Your task to perform on an android device: Add "asus zenbook" to the cart on amazon.com Image 0: 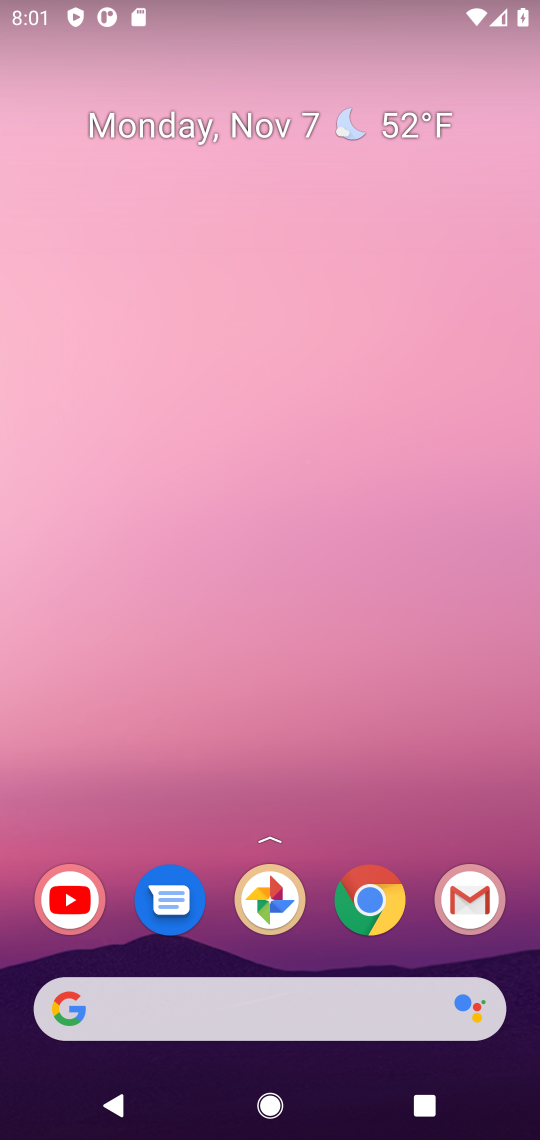
Step 0: click (238, 989)
Your task to perform on an android device: Add "asus zenbook" to the cart on amazon.com Image 1: 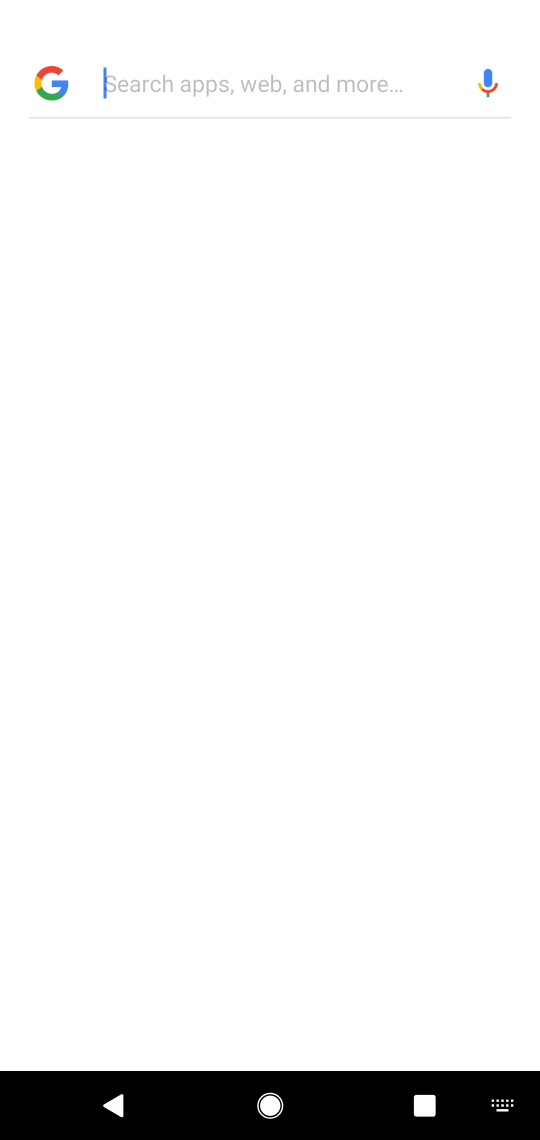
Step 1: press home button
Your task to perform on an android device: Add "asus zenbook" to the cart on amazon.com Image 2: 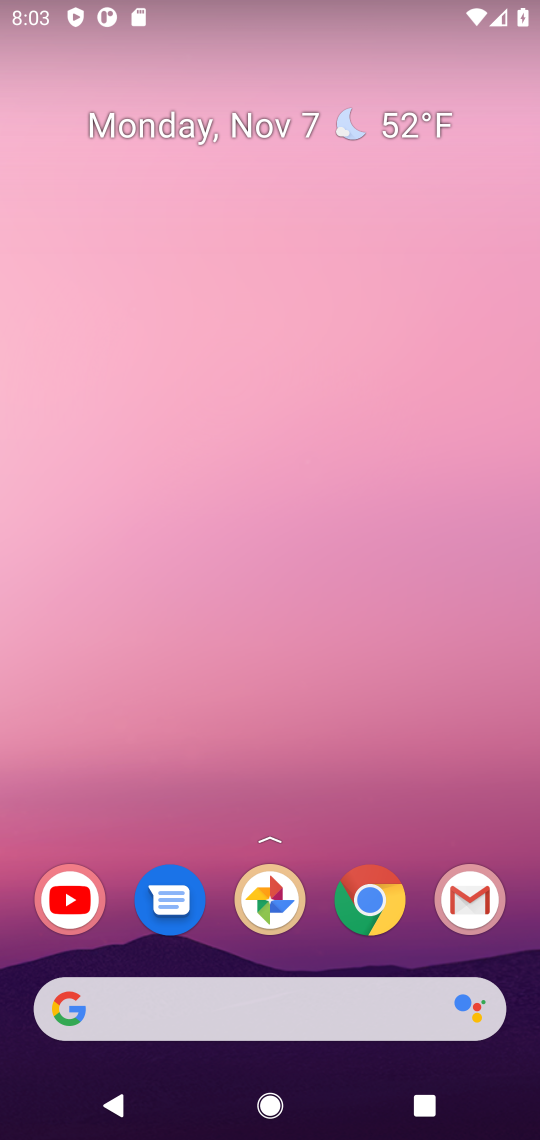
Step 2: click (281, 985)
Your task to perform on an android device: Add "asus zenbook" to the cart on amazon.com Image 3: 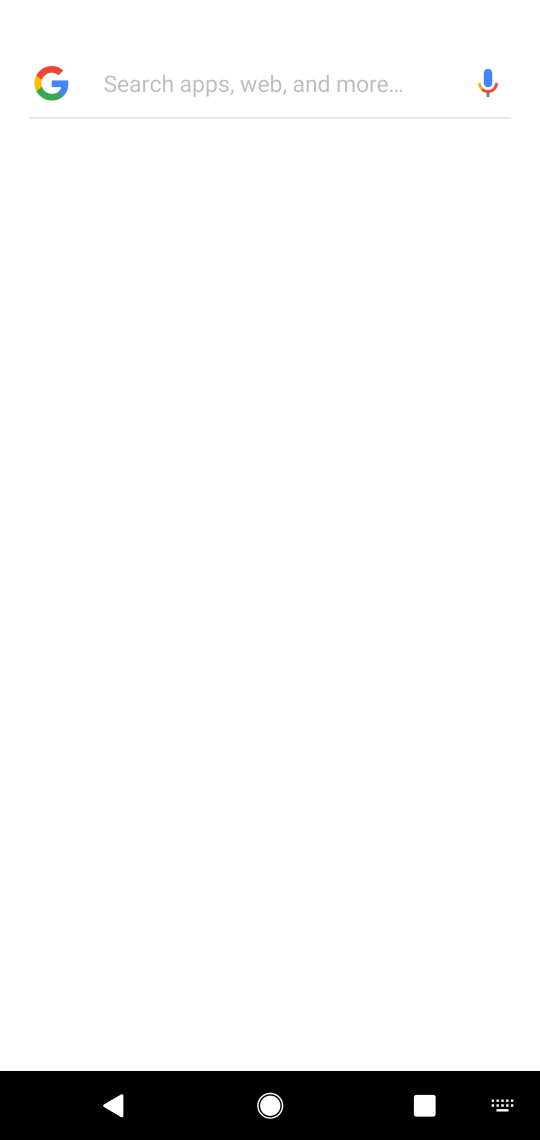
Step 3: task complete